Your task to perform on an android device: Go to battery settings Image 0: 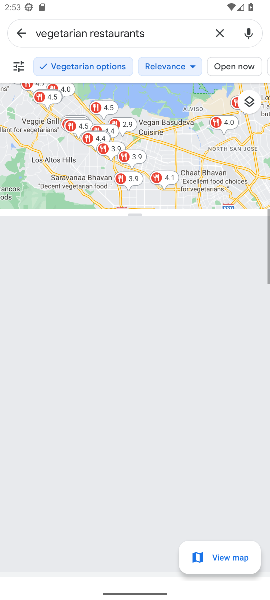
Step 0: press home button
Your task to perform on an android device: Go to battery settings Image 1: 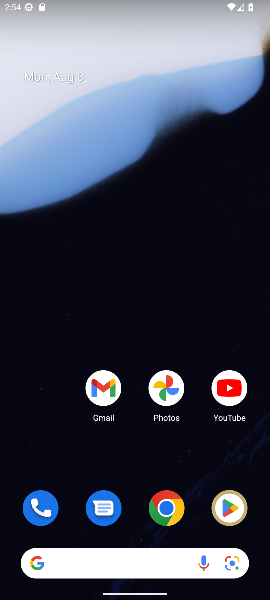
Step 1: drag from (73, 461) to (75, 90)
Your task to perform on an android device: Go to battery settings Image 2: 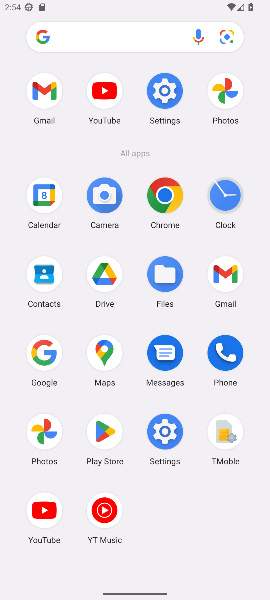
Step 2: click (164, 88)
Your task to perform on an android device: Go to battery settings Image 3: 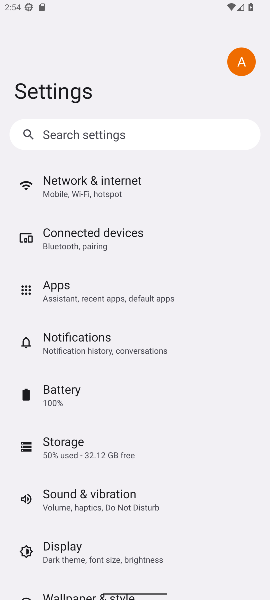
Step 3: click (63, 388)
Your task to perform on an android device: Go to battery settings Image 4: 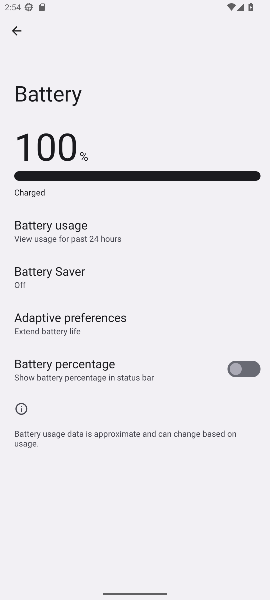
Step 4: task complete